Your task to perform on an android device: turn pop-ups on in chrome Image 0: 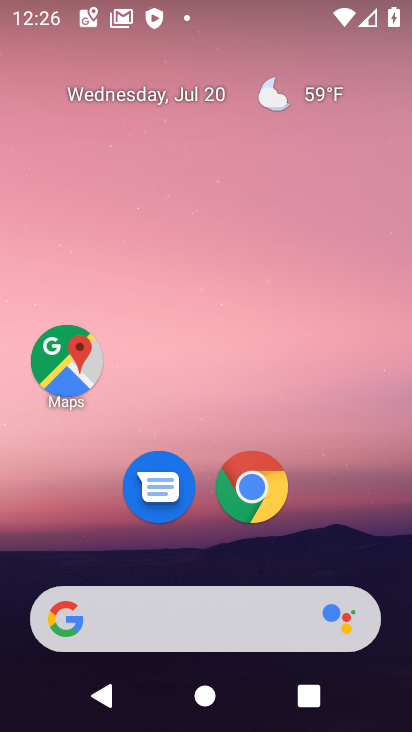
Step 0: drag from (180, 483) to (231, 32)
Your task to perform on an android device: turn pop-ups on in chrome Image 1: 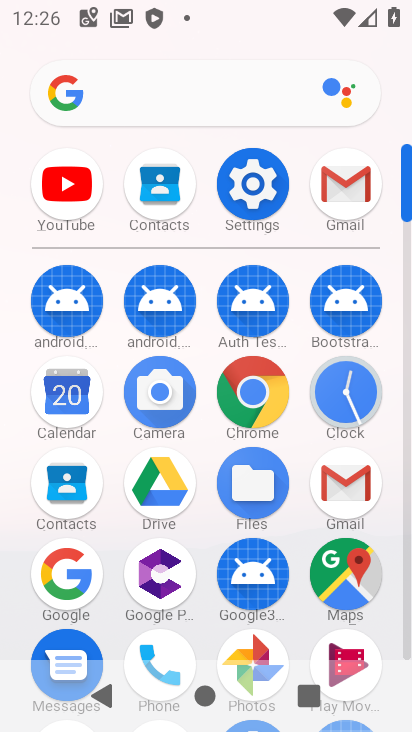
Step 1: click (246, 175)
Your task to perform on an android device: turn pop-ups on in chrome Image 2: 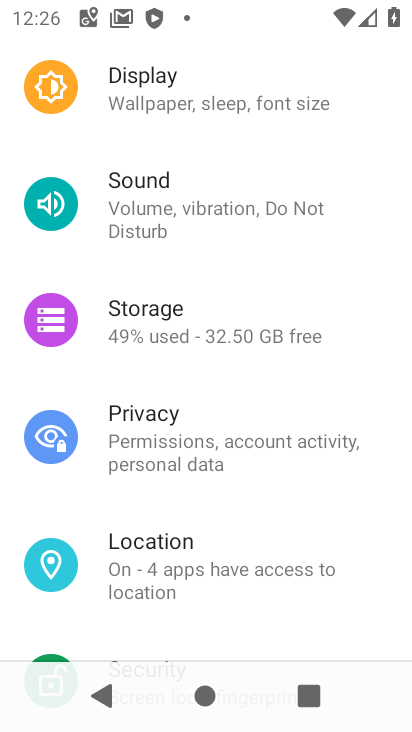
Step 2: press back button
Your task to perform on an android device: turn pop-ups on in chrome Image 3: 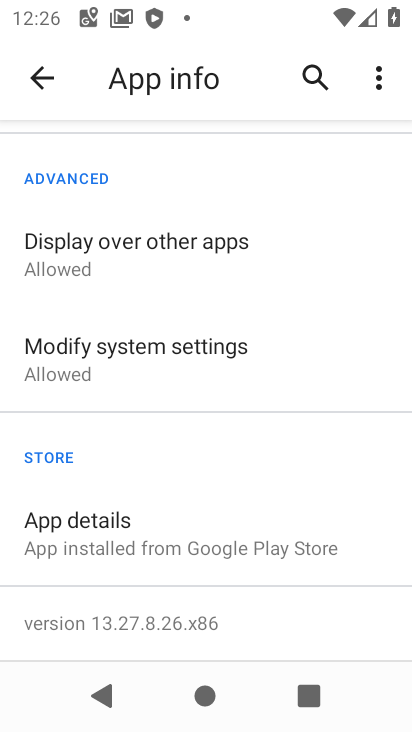
Step 3: press back button
Your task to perform on an android device: turn pop-ups on in chrome Image 4: 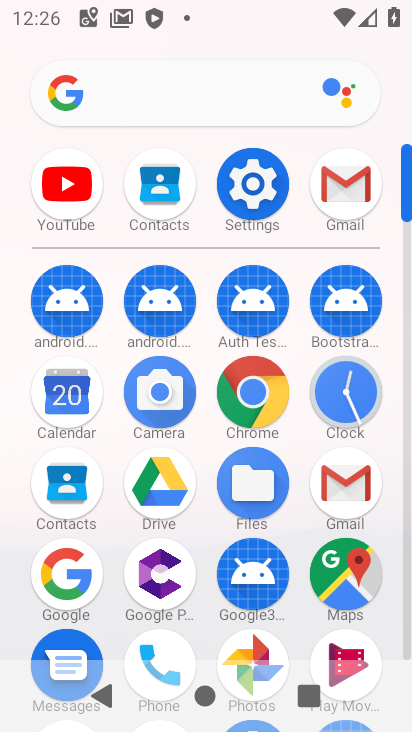
Step 4: click (243, 413)
Your task to perform on an android device: turn pop-ups on in chrome Image 5: 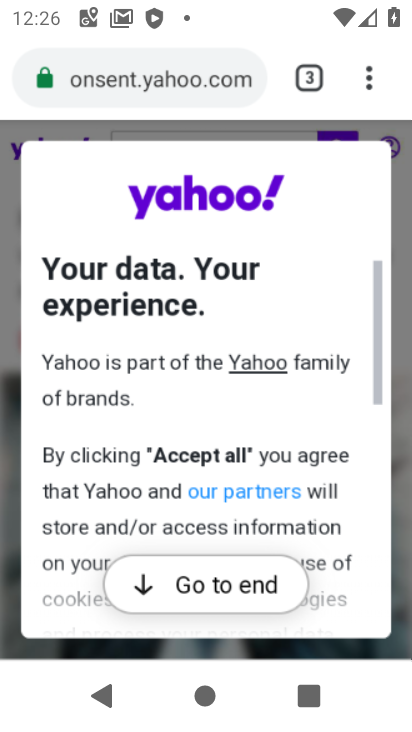
Step 5: drag from (370, 82) to (78, 549)
Your task to perform on an android device: turn pop-ups on in chrome Image 6: 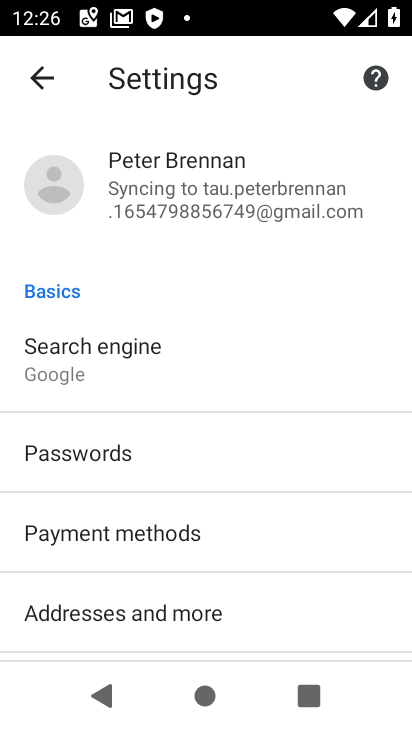
Step 6: drag from (99, 607) to (210, 150)
Your task to perform on an android device: turn pop-ups on in chrome Image 7: 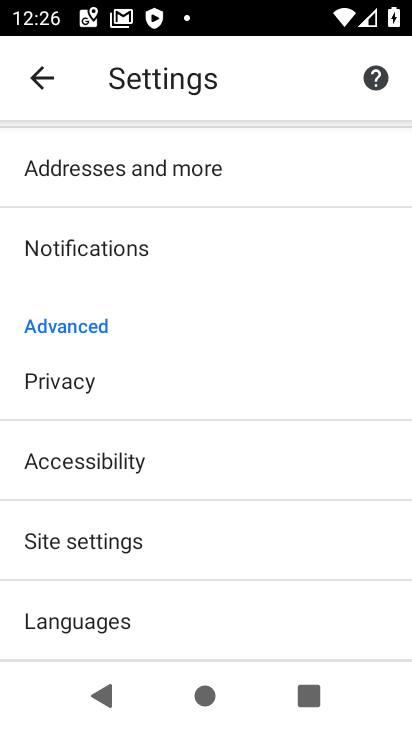
Step 7: click (130, 554)
Your task to perform on an android device: turn pop-ups on in chrome Image 8: 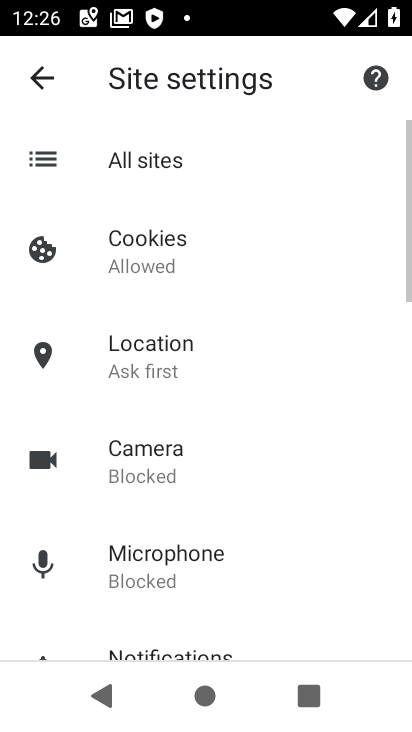
Step 8: drag from (195, 617) to (258, 136)
Your task to perform on an android device: turn pop-ups on in chrome Image 9: 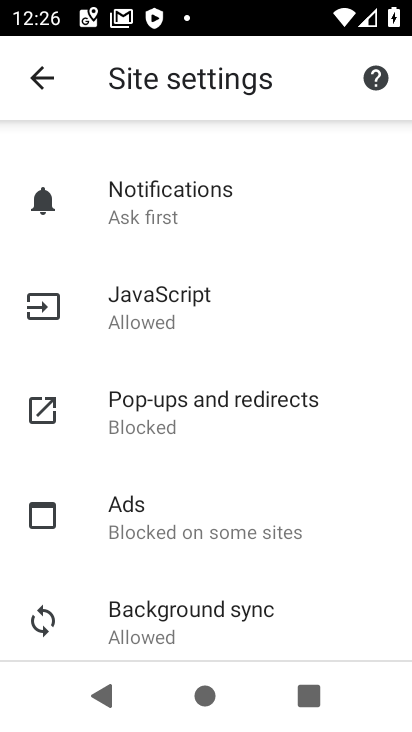
Step 9: click (179, 413)
Your task to perform on an android device: turn pop-ups on in chrome Image 10: 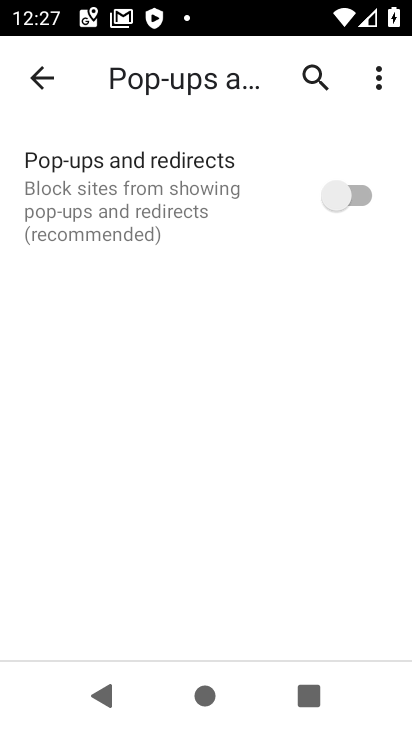
Step 10: click (378, 183)
Your task to perform on an android device: turn pop-ups on in chrome Image 11: 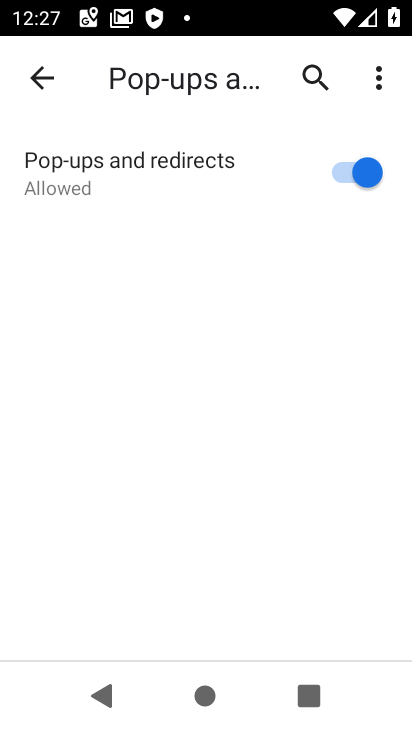
Step 11: task complete